Your task to perform on an android device: See recent photos Image 0: 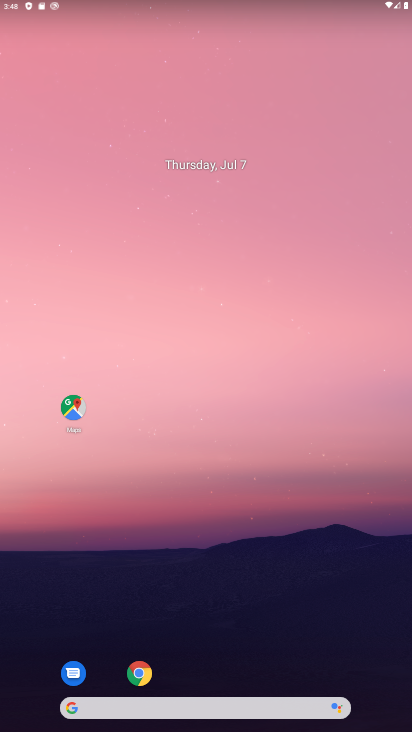
Step 0: drag from (232, 431) to (261, 34)
Your task to perform on an android device: See recent photos Image 1: 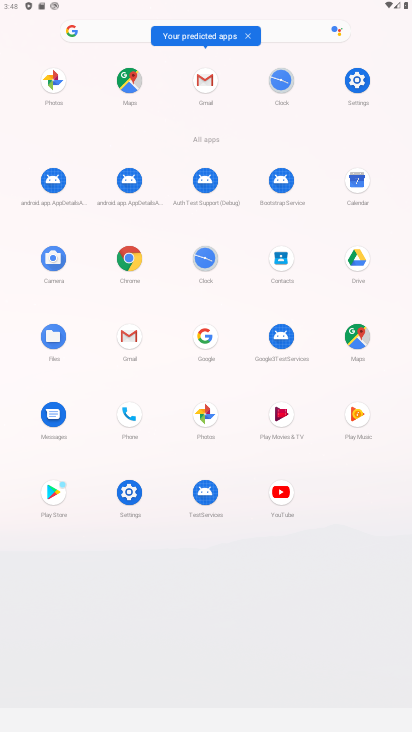
Step 1: click (203, 415)
Your task to perform on an android device: See recent photos Image 2: 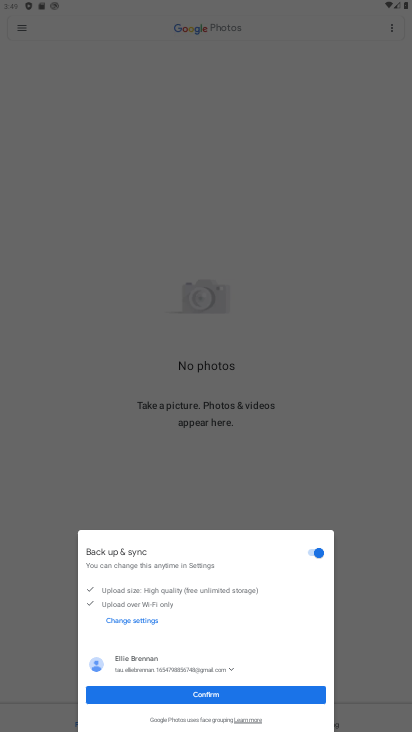
Step 2: click (188, 695)
Your task to perform on an android device: See recent photos Image 3: 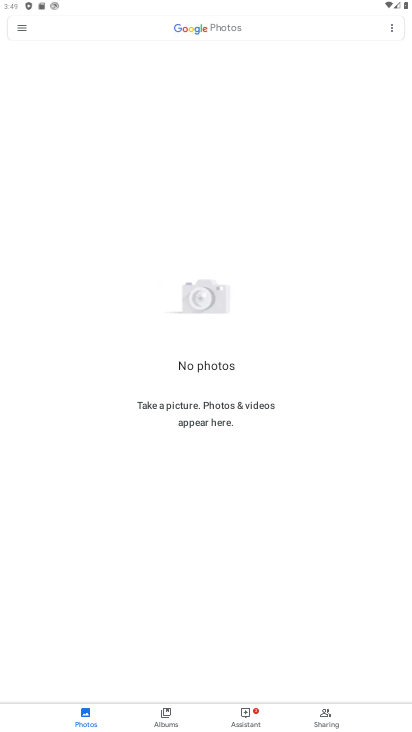
Step 3: click (81, 713)
Your task to perform on an android device: See recent photos Image 4: 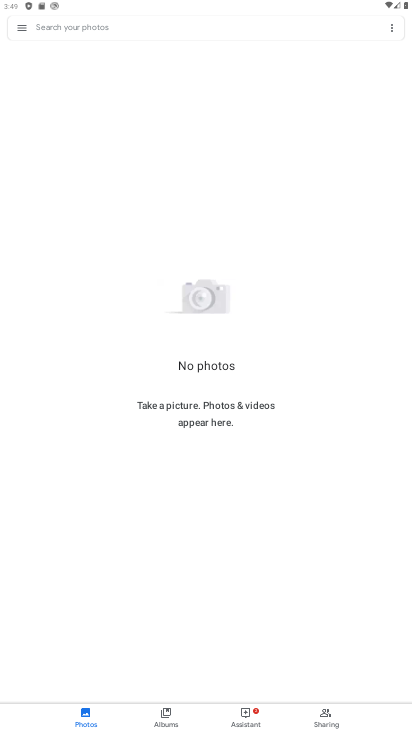
Step 4: task complete